Your task to perform on an android device: open app "The Home Depot" (install if not already installed) and go to login screen Image 0: 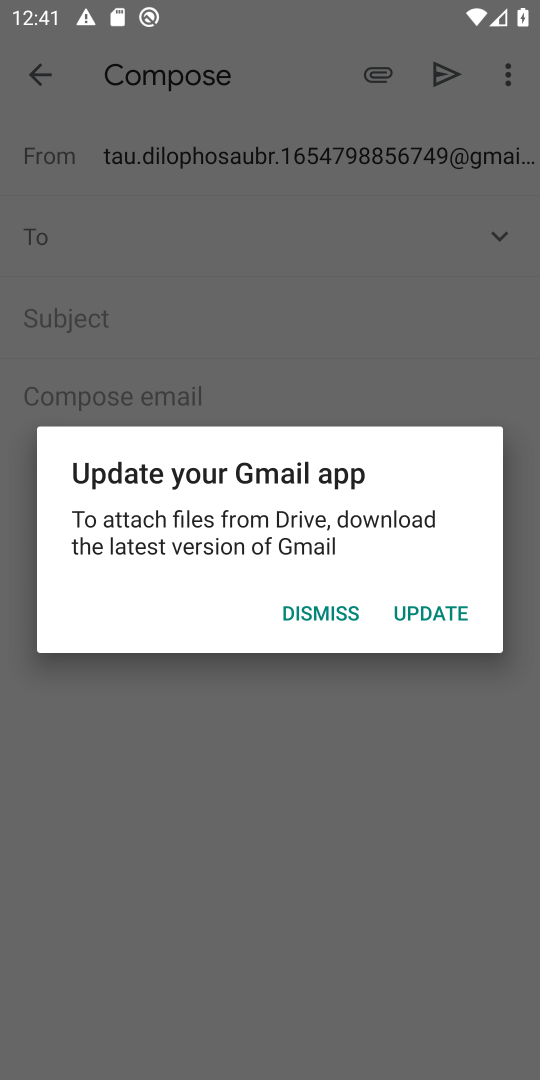
Step 0: press home button
Your task to perform on an android device: open app "The Home Depot" (install if not already installed) and go to login screen Image 1: 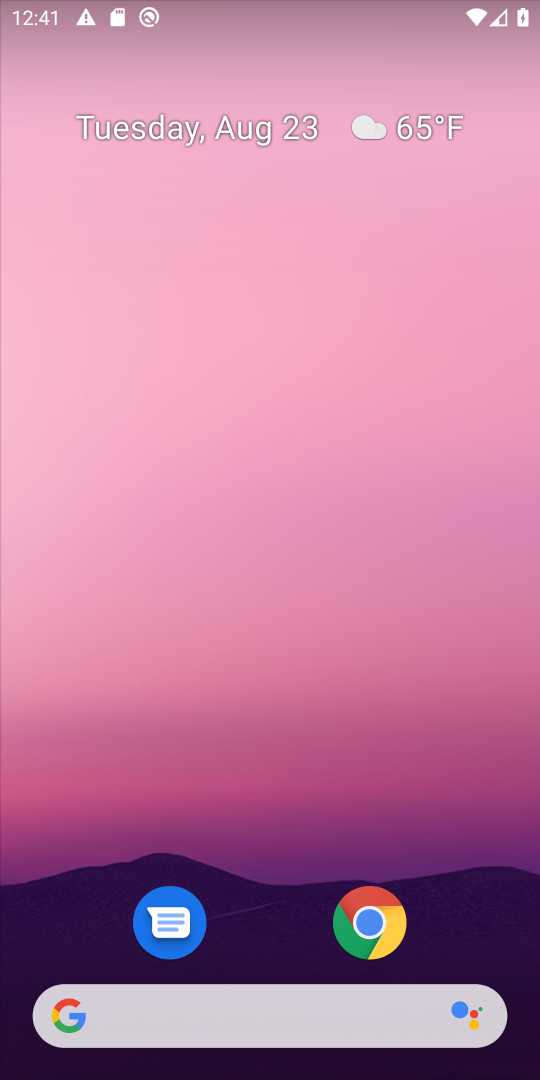
Step 1: drag from (285, 900) to (315, 49)
Your task to perform on an android device: open app "The Home Depot" (install if not already installed) and go to login screen Image 2: 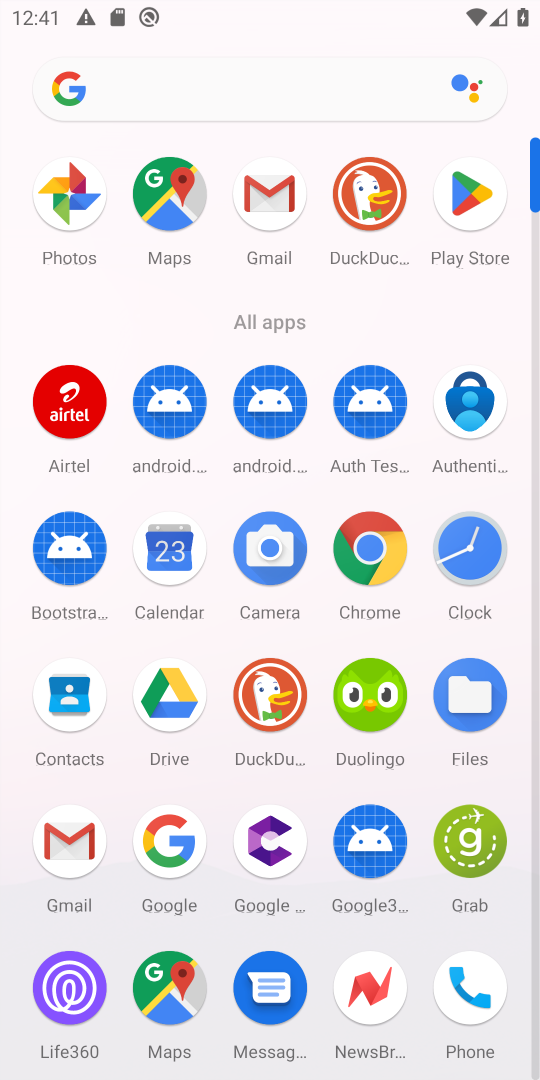
Step 2: click (468, 216)
Your task to perform on an android device: open app "The Home Depot" (install if not already installed) and go to login screen Image 3: 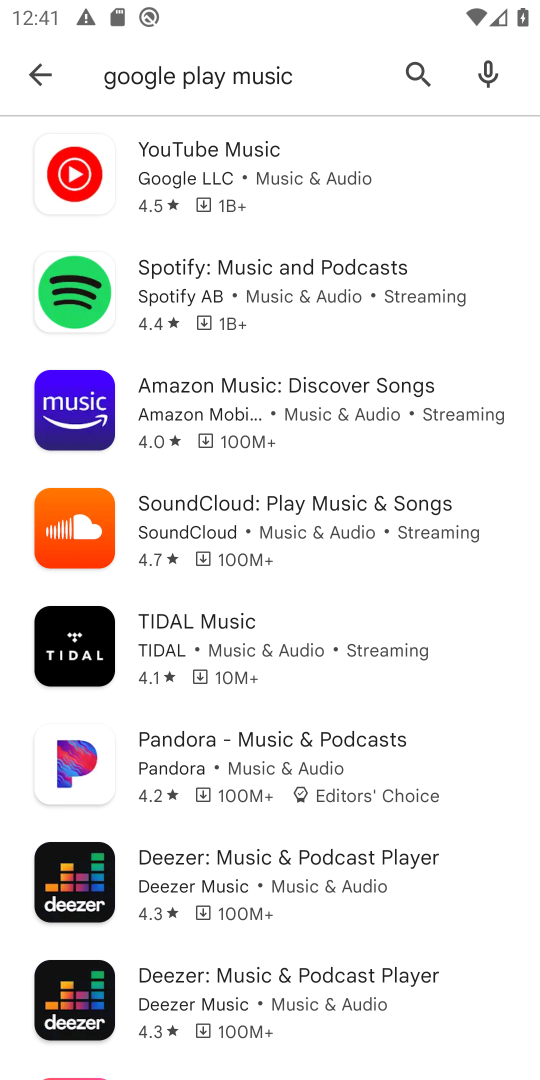
Step 3: click (241, 90)
Your task to perform on an android device: open app "The Home Depot" (install if not already installed) and go to login screen Image 4: 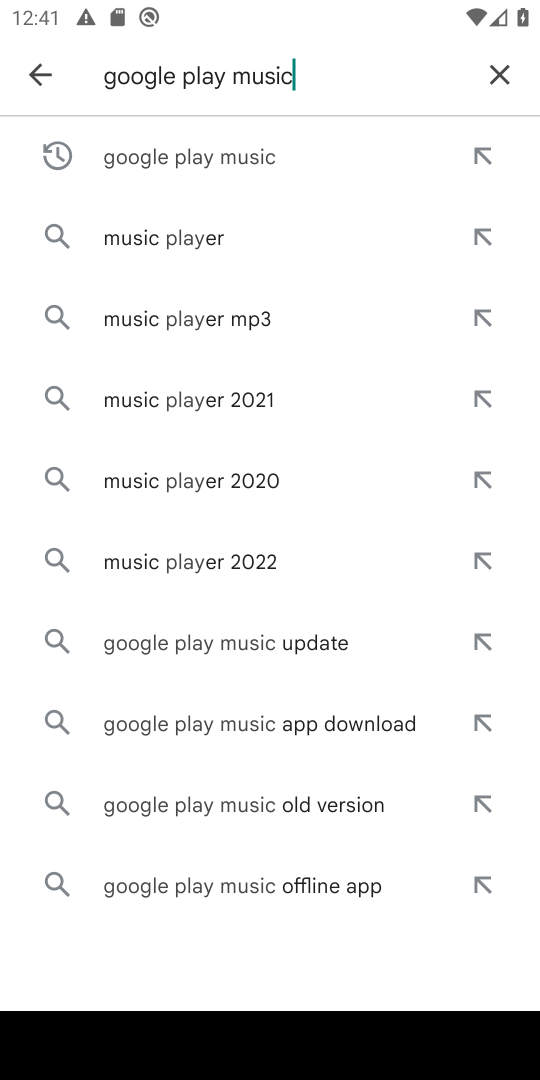
Step 4: click (499, 65)
Your task to perform on an android device: open app "The Home Depot" (install if not already installed) and go to login screen Image 5: 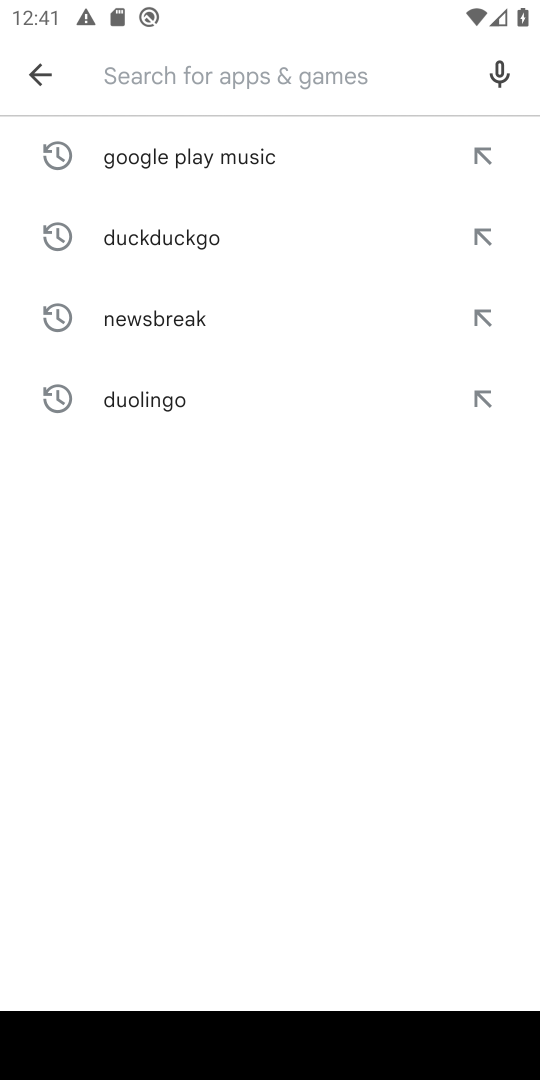
Step 5: type "the home depot"
Your task to perform on an android device: open app "The Home Depot" (install if not already installed) and go to login screen Image 6: 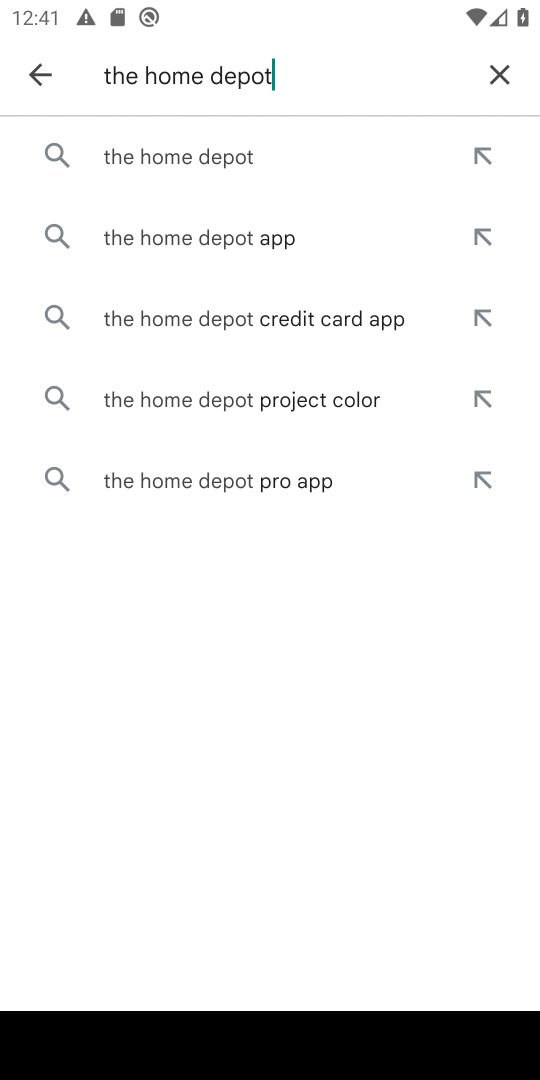
Step 6: click (148, 159)
Your task to perform on an android device: open app "The Home Depot" (install if not already installed) and go to login screen Image 7: 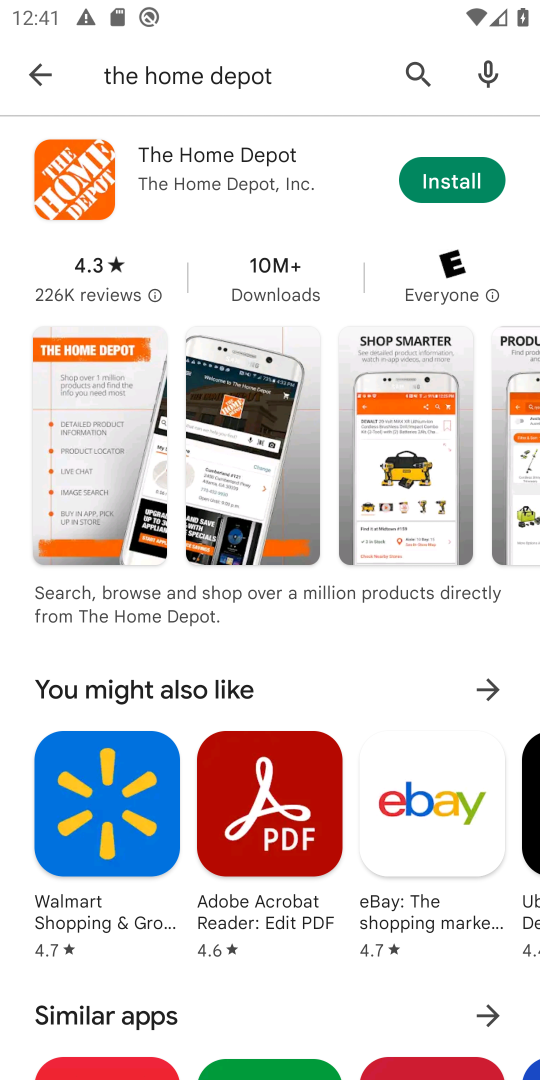
Step 7: click (464, 176)
Your task to perform on an android device: open app "The Home Depot" (install if not already installed) and go to login screen Image 8: 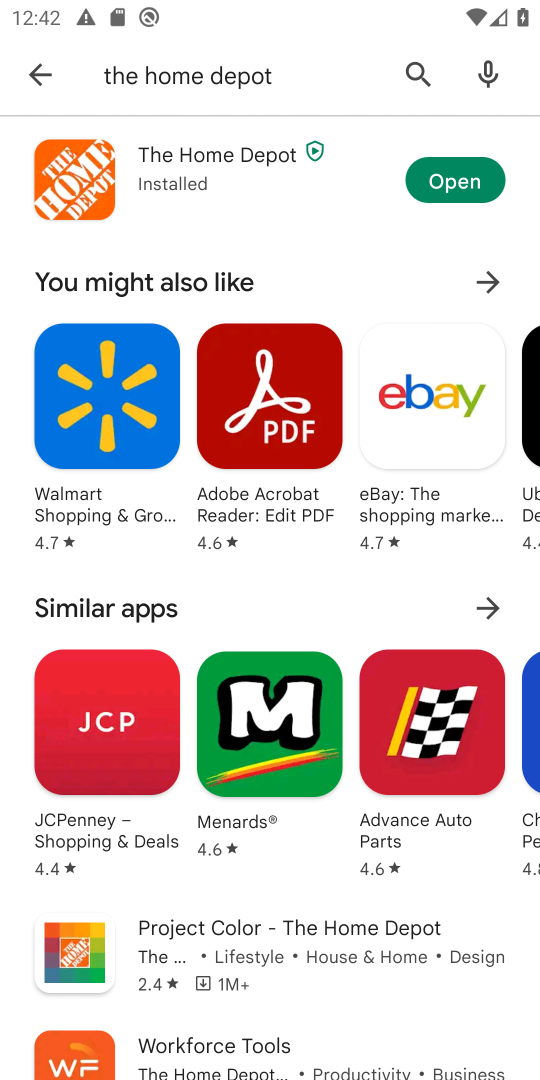
Step 8: click (441, 184)
Your task to perform on an android device: open app "The Home Depot" (install if not already installed) and go to login screen Image 9: 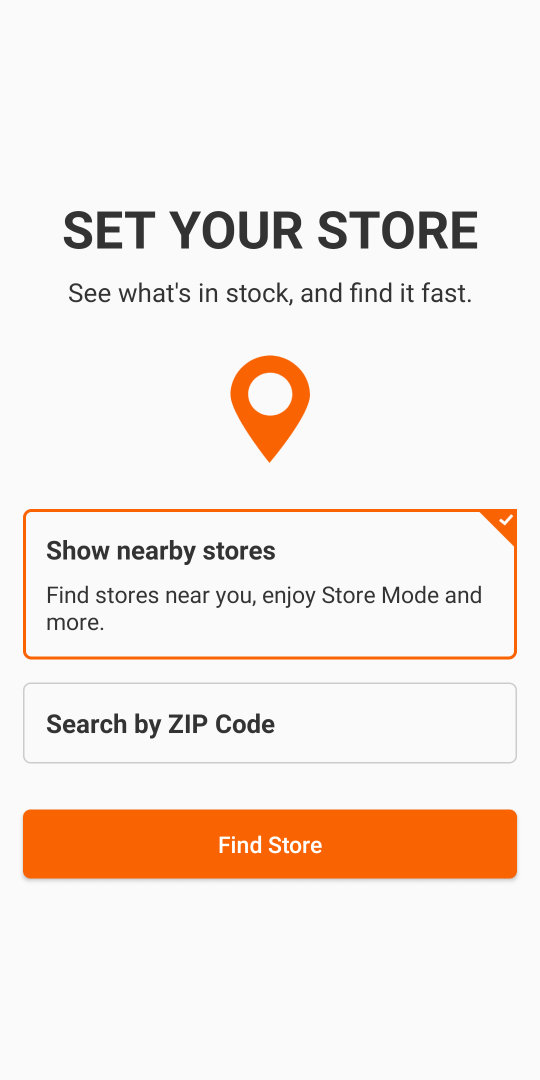
Step 9: click (242, 848)
Your task to perform on an android device: open app "The Home Depot" (install if not already installed) and go to login screen Image 10: 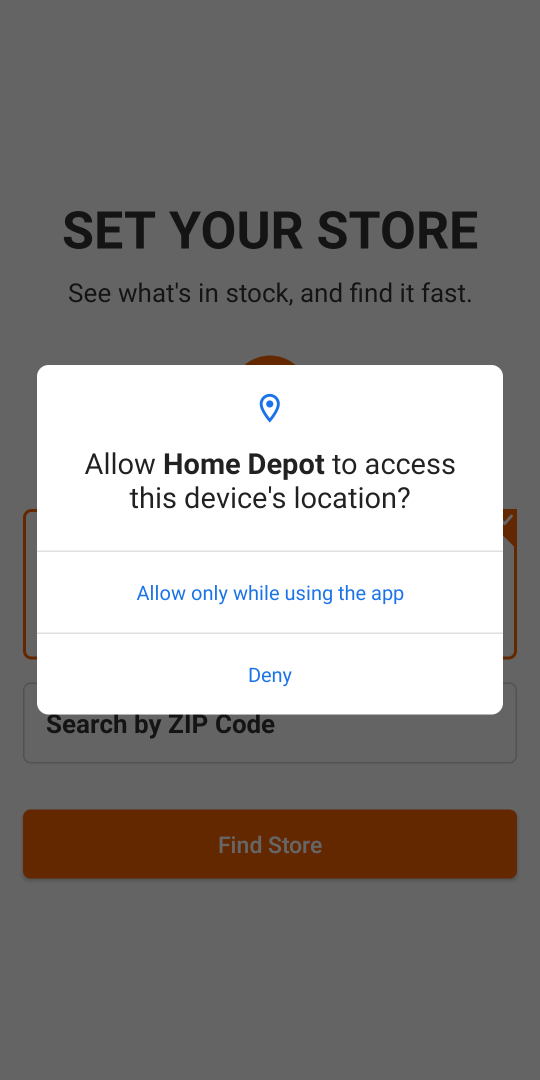
Step 10: click (262, 586)
Your task to perform on an android device: open app "The Home Depot" (install if not already installed) and go to login screen Image 11: 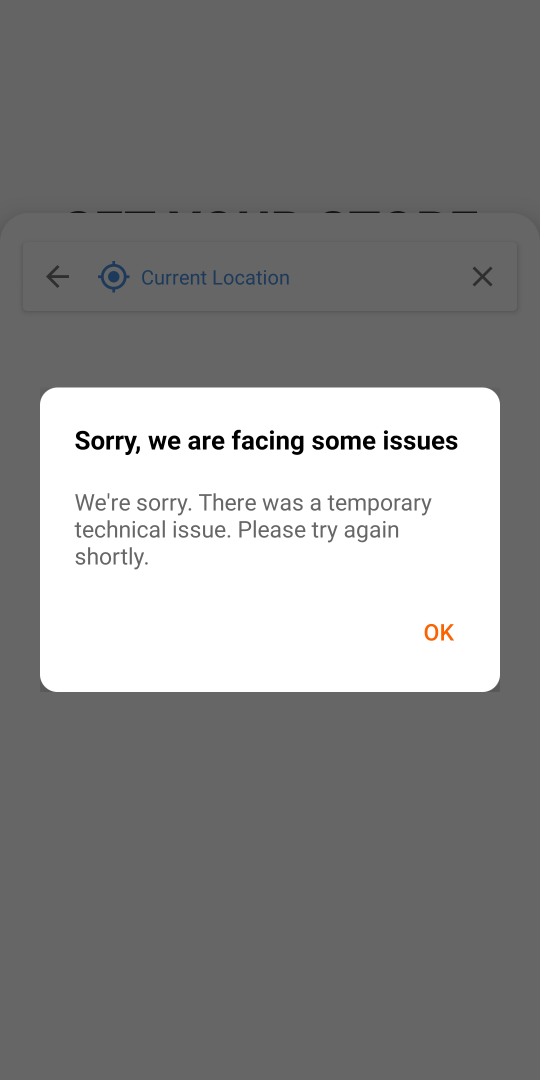
Step 11: click (398, 623)
Your task to perform on an android device: open app "The Home Depot" (install if not already installed) and go to login screen Image 12: 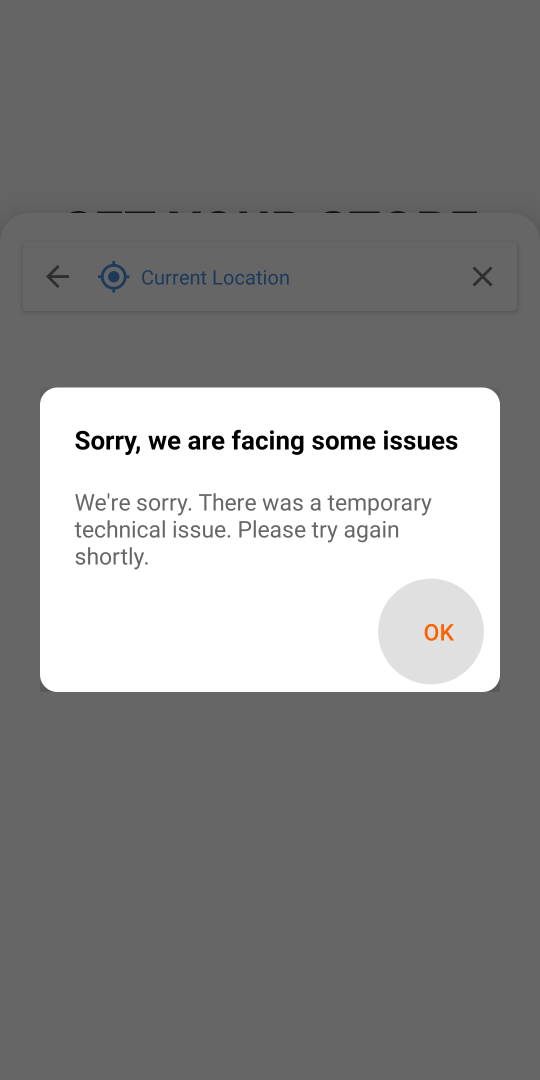
Step 12: click (436, 632)
Your task to perform on an android device: open app "The Home Depot" (install if not already installed) and go to login screen Image 13: 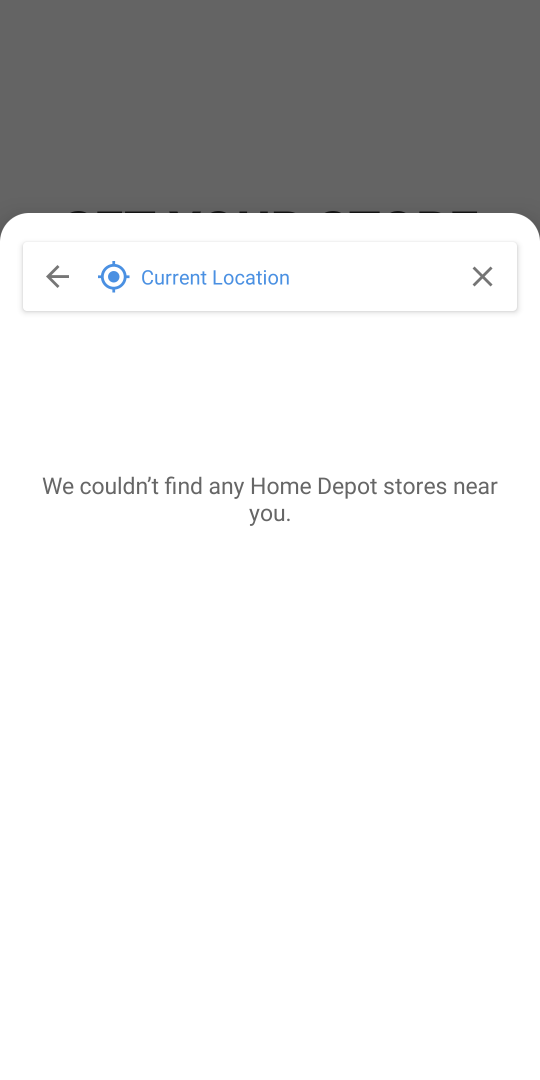
Step 13: click (43, 256)
Your task to perform on an android device: open app "The Home Depot" (install if not already installed) and go to login screen Image 14: 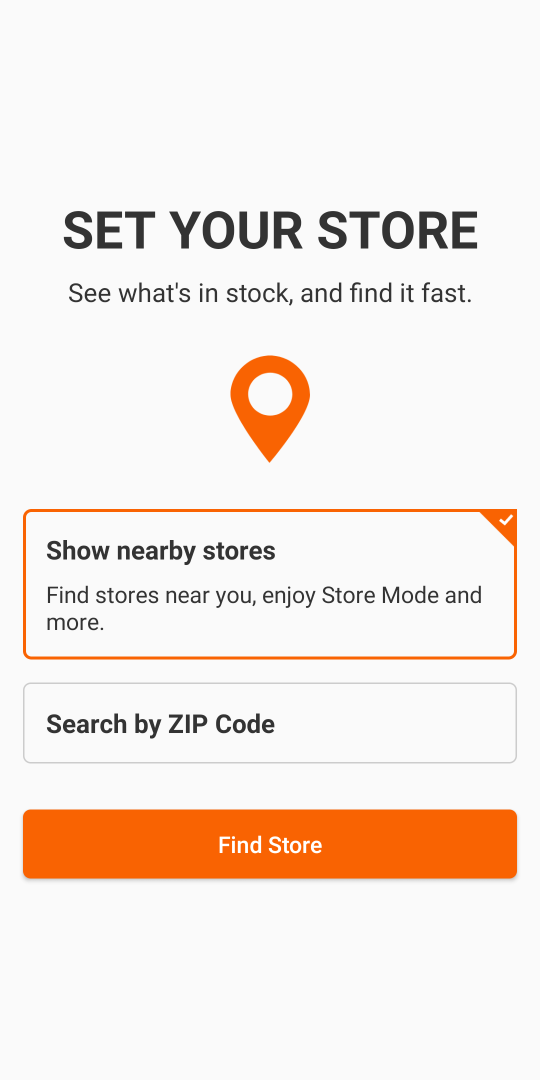
Step 14: task complete